Your task to perform on an android device: clear history in the chrome app Image 0: 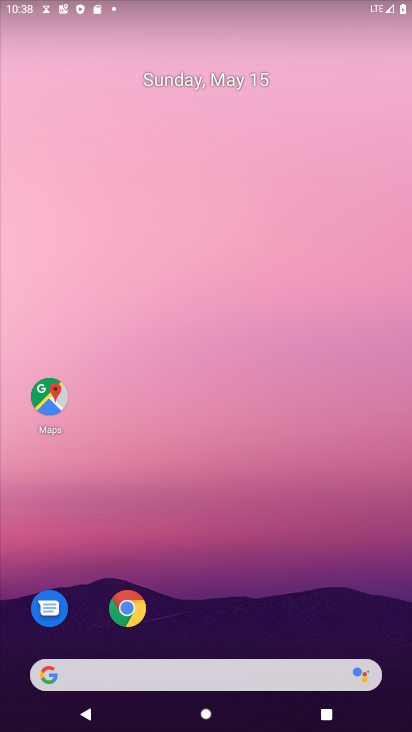
Step 0: drag from (266, 595) to (234, 78)
Your task to perform on an android device: clear history in the chrome app Image 1: 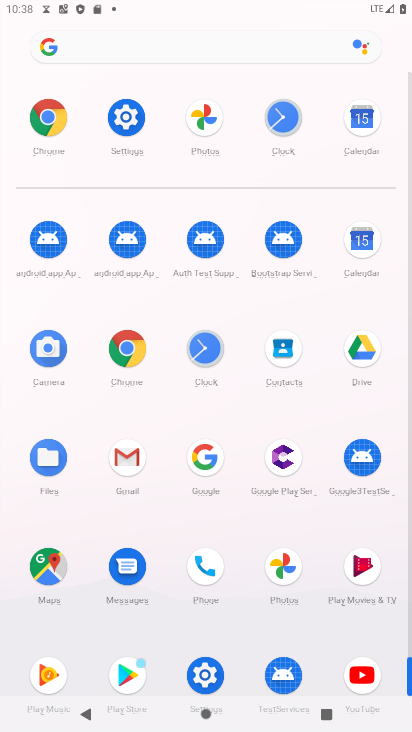
Step 1: click (47, 108)
Your task to perform on an android device: clear history in the chrome app Image 2: 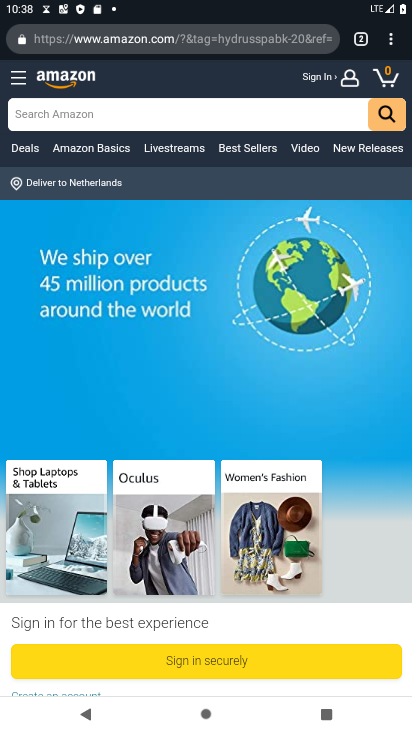
Step 2: drag from (394, 37) to (269, 217)
Your task to perform on an android device: clear history in the chrome app Image 3: 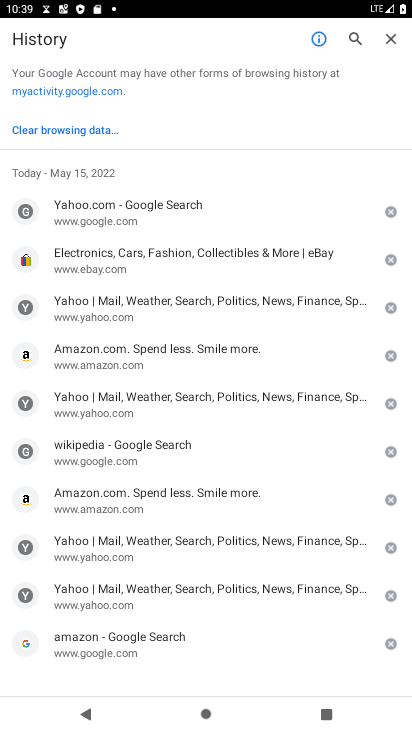
Step 3: click (72, 129)
Your task to perform on an android device: clear history in the chrome app Image 4: 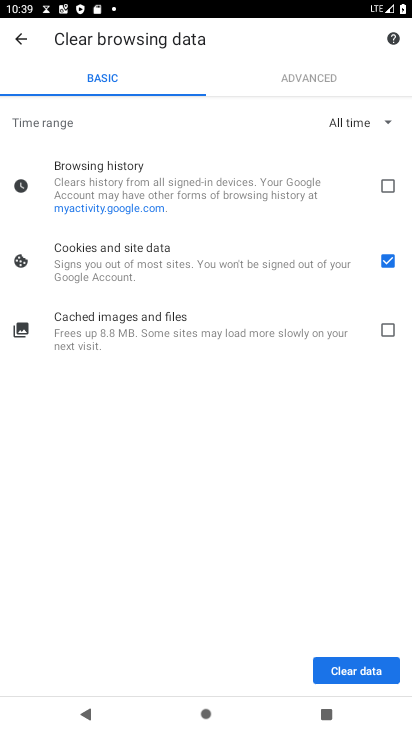
Step 4: click (383, 186)
Your task to perform on an android device: clear history in the chrome app Image 5: 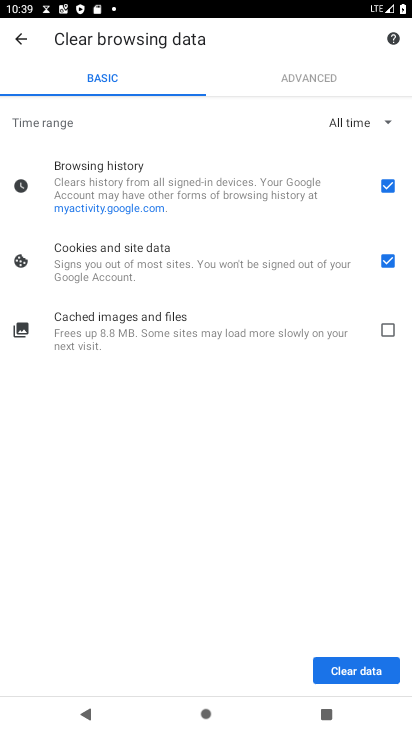
Step 5: click (389, 263)
Your task to perform on an android device: clear history in the chrome app Image 6: 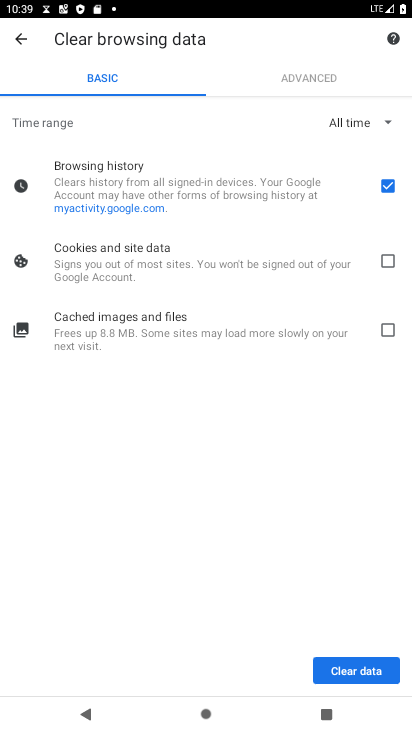
Step 6: click (370, 663)
Your task to perform on an android device: clear history in the chrome app Image 7: 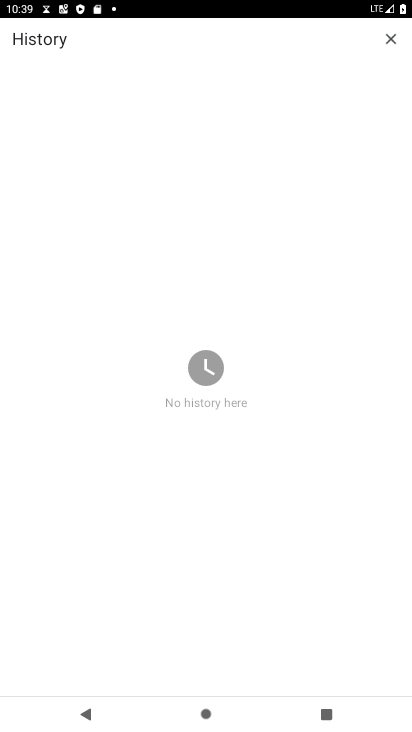
Step 7: task complete